Your task to perform on an android device: Open battery settings Image 0: 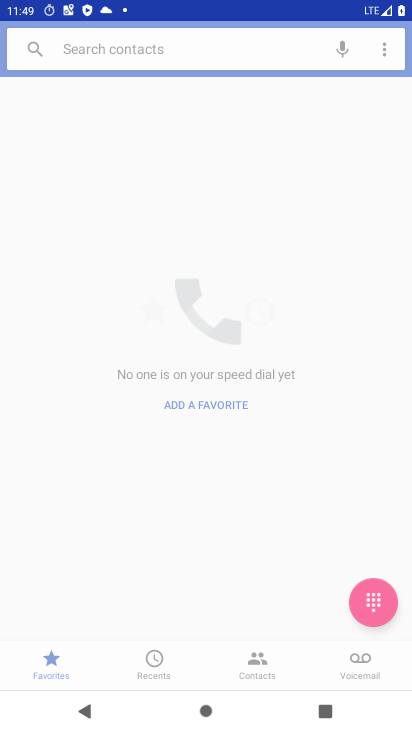
Step 0: drag from (257, 591) to (180, 72)
Your task to perform on an android device: Open battery settings Image 1: 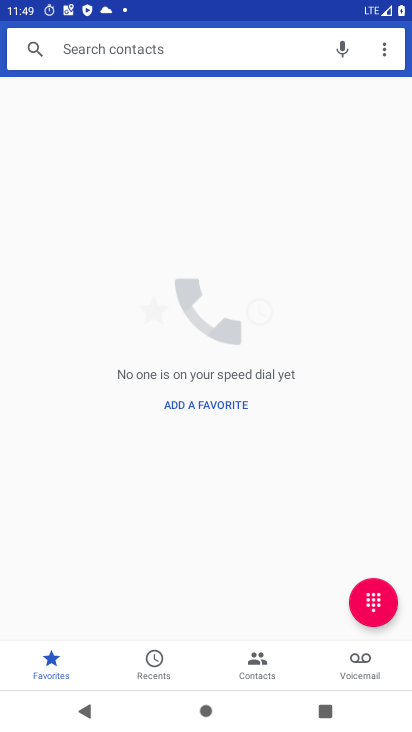
Step 1: press home button
Your task to perform on an android device: Open battery settings Image 2: 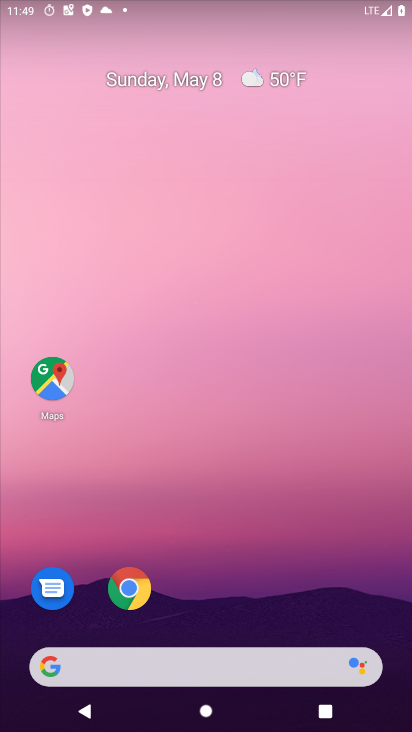
Step 2: drag from (276, 577) to (221, 64)
Your task to perform on an android device: Open battery settings Image 3: 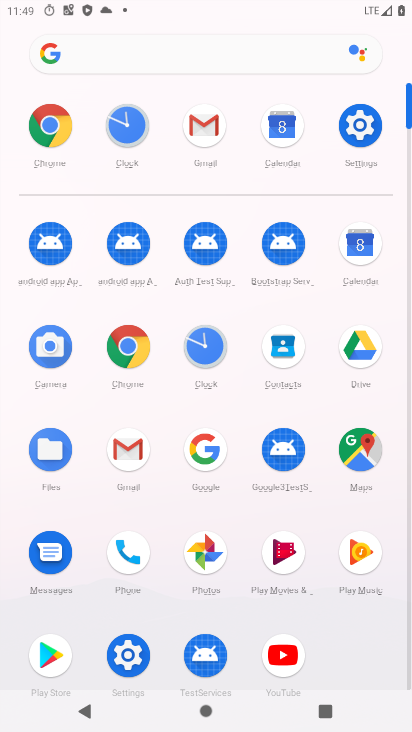
Step 3: click (378, 111)
Your task to perform on an android device: Open battery settings Image 4: 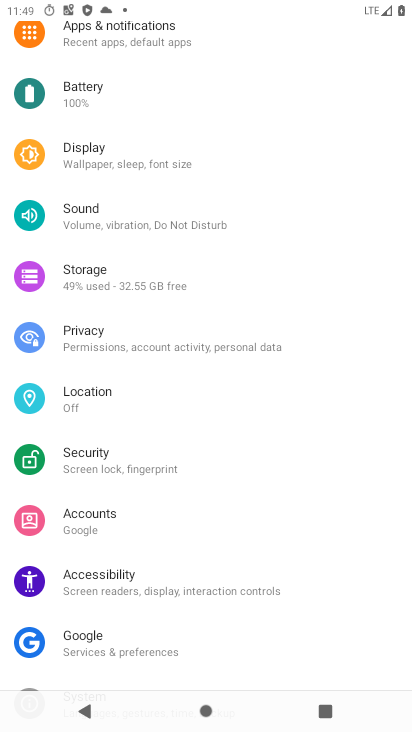
Step 4: click (132, 95)
Your task to perform on an android device: Open battery settings Image 5: 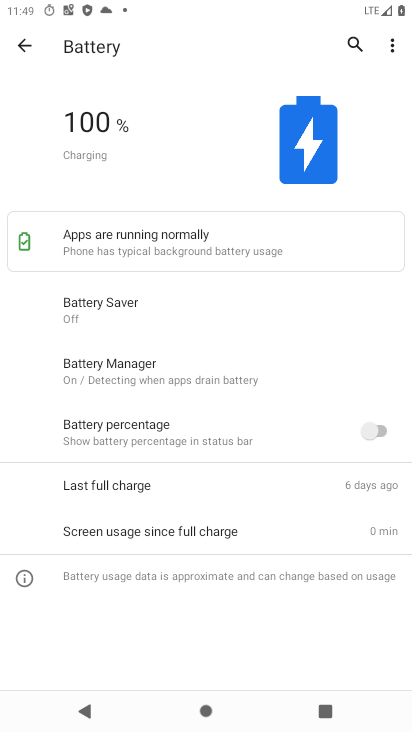
Step 5: task complete